Your task to perform on an android device: turn vacation reply on in the gmail app Image 0: 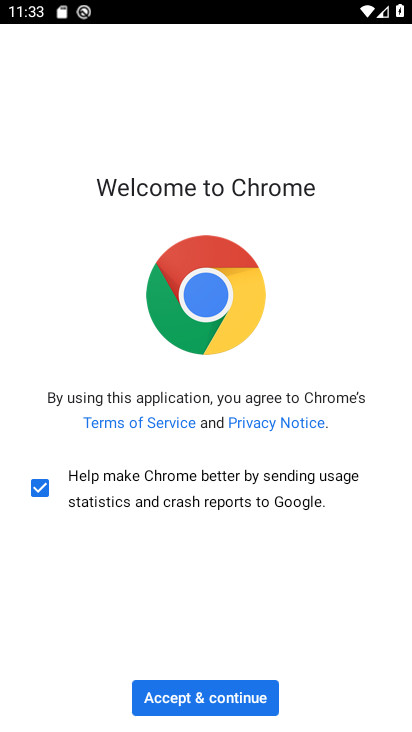
Step 0: press home button
Your task to perform on an android device: turn vacation reply on in the gmail app Image 1: 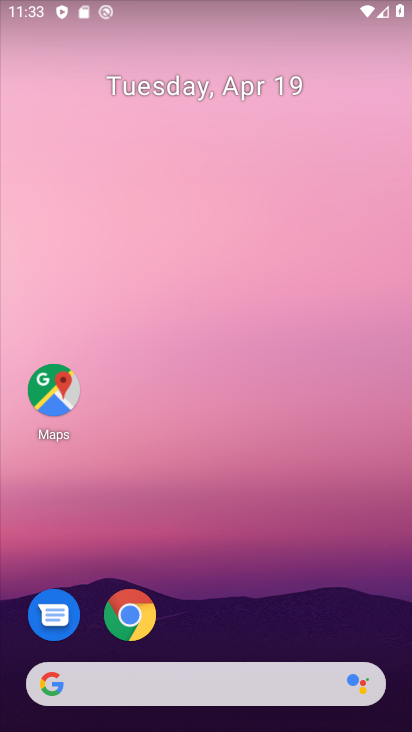
Step 1: drag from (343, 283) to (333, 232)
Your task to perform on an android device: turn vacation reply on in the gmail app Image 2: 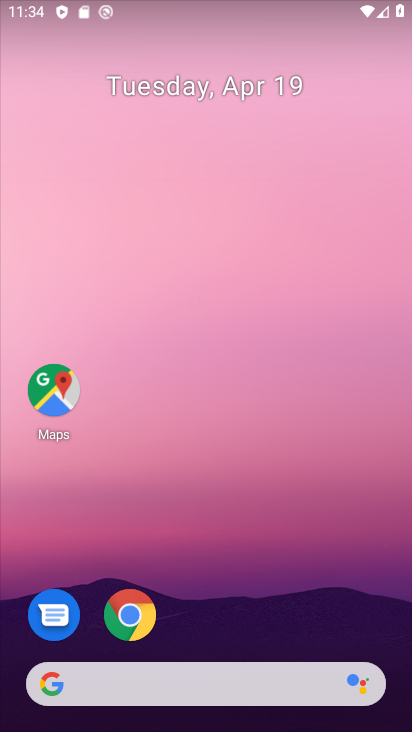
Step 2: drag from (366, 613) to (312, 25)
Your task to perform on an android device: turn vacation reply on in the gmail app Image 3: 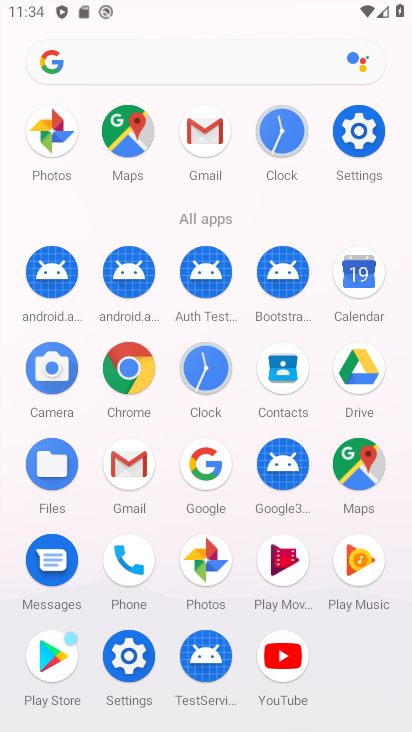
Step 3: click (202, 129)
Your task to perform on an android device: turn vacation reply on in the gmail app Image 4: 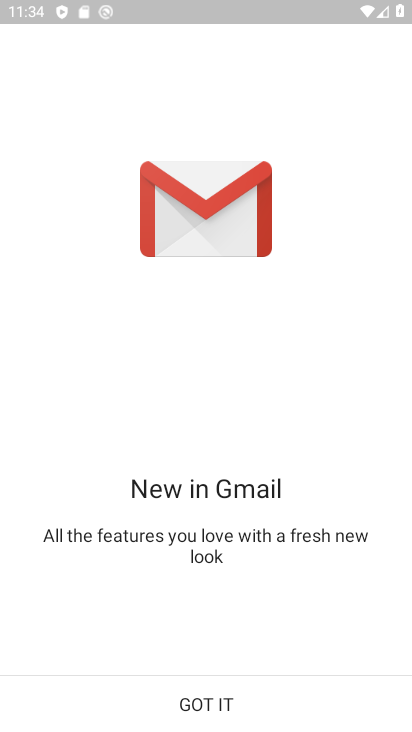
Step 4: click (197, 689)
Your task to perform on an android device: turn vacation reply on in the gmail app Image 5: 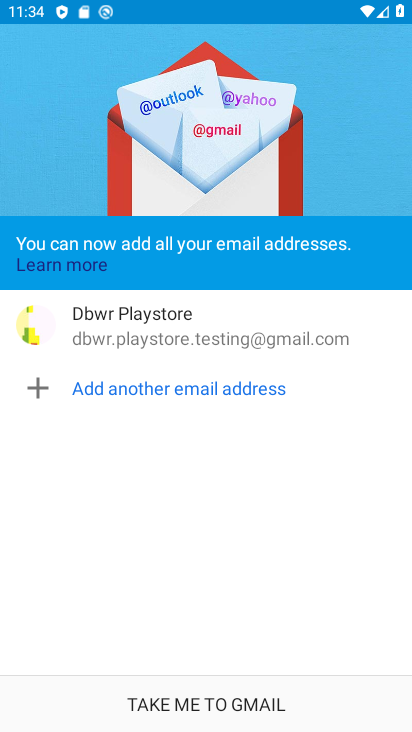
Step 5: click (226, 697)
Your task to perform on an android device: turn vacation reply on in the gmail app Image 6: 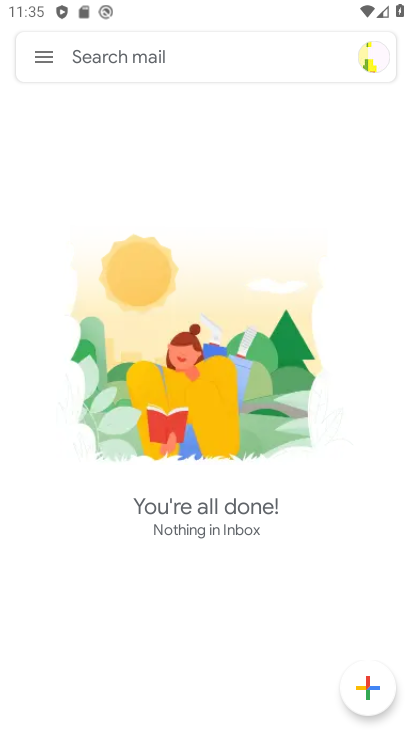
Step 6: click (40, 52)
Your task to perform on an android device: turn vacation reply on in the gmail app Image 7: 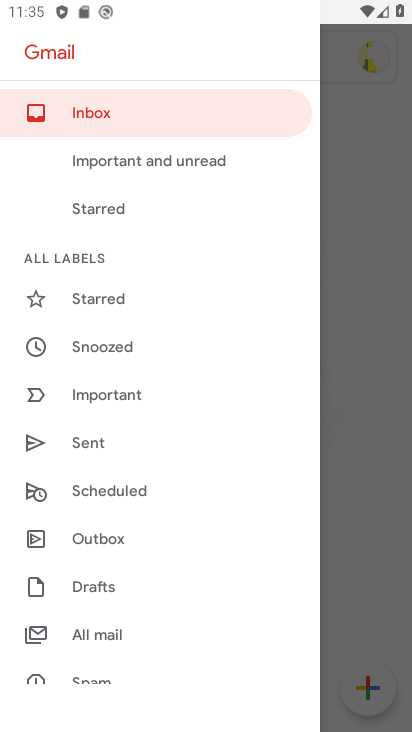
Step 7: drag from (179, 646) to (147, 350)
Your task to perform on an android device: turn vacation reply on in the gmail app Image 8: 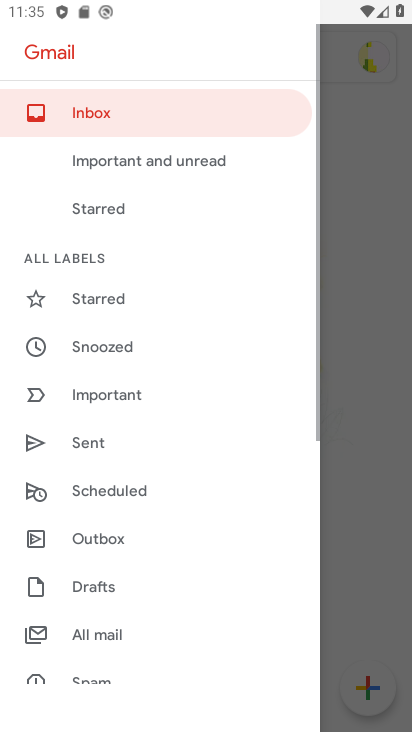
Step 8: drag from (199, 407) to (195, 327)
Your task to perform on an android device: turn vacation reply on in the gmail app Image 9: 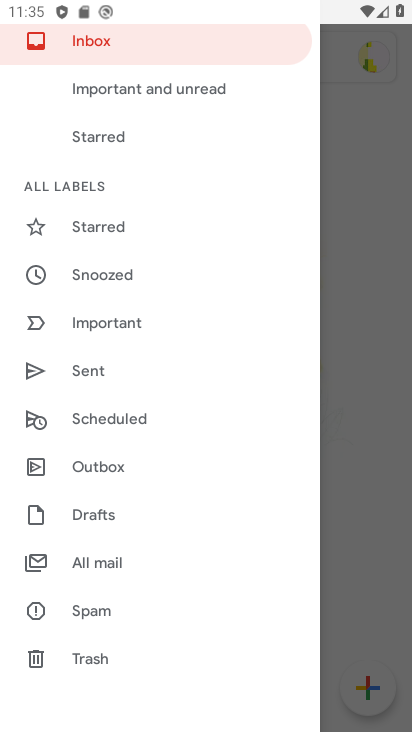
Step 9: drag from (218, 617) to (187, 285)
Your task to perform on an android device: turn vacation reply on in the gmail app Image 10: 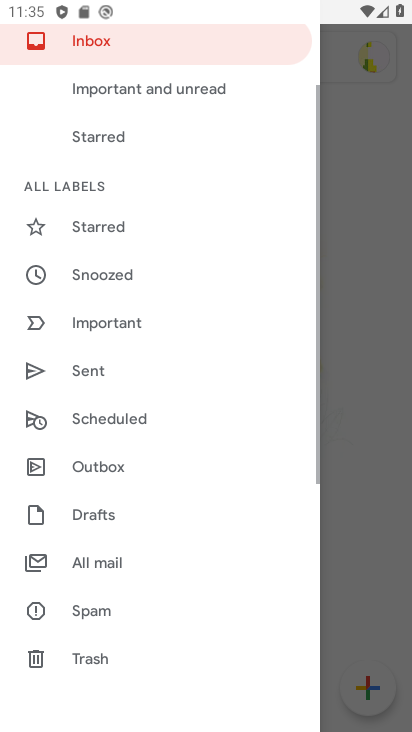
Step 10: drag from (208, 376) to (204, 309)
Your task to perform on an android device: turn vacation reply on in the gmail app Image 11: 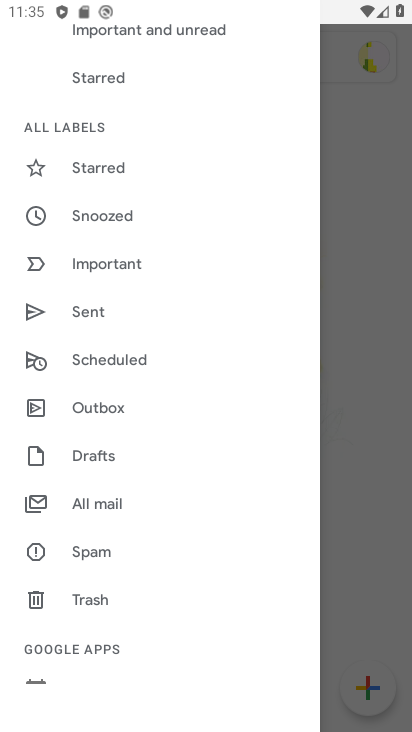
Step 11: drag from (223, 635) to (217, 249)
Your task to perform on an android device: turn vacation reply on in the gmail app Image 12: 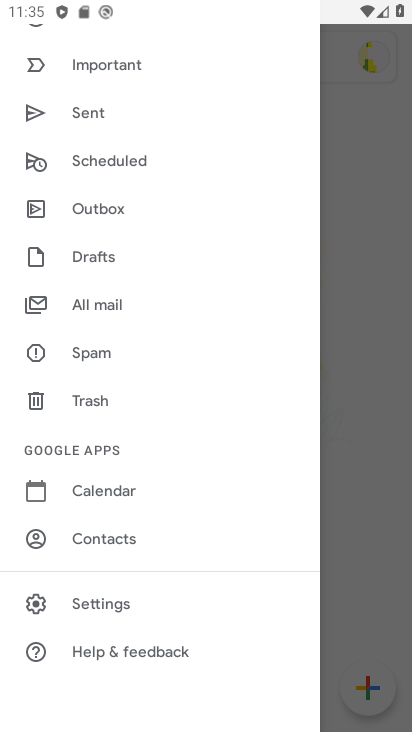
Step 12: click (98, 601)
Your task to perform on an android device: turn vacation reply on in the gmail app Image 13: 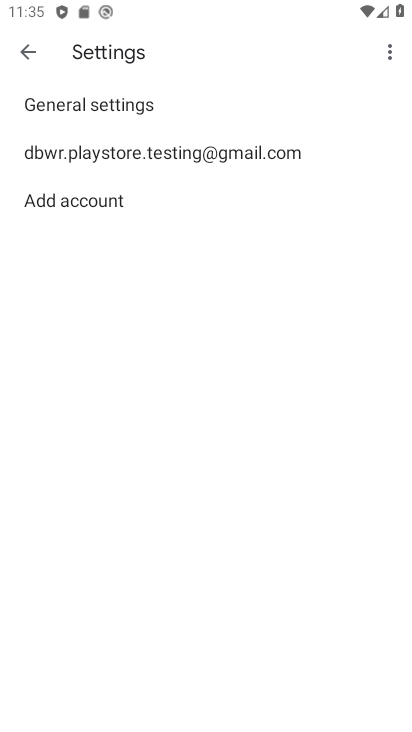
Step 13: click (69, 144)
Your task to perform on an android device: turn vacation reply on in the gmail app Image 14: 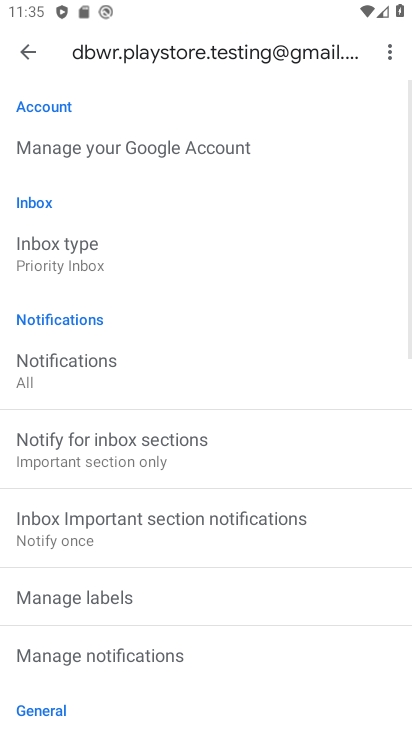
Step 14: task complete